Your task to perform on an android device: Go to Android settings Image 0: 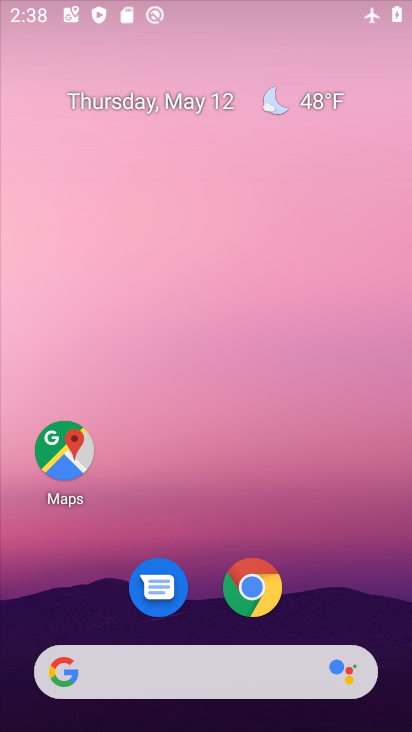
Step 0: press home button
Your task to perform on an android device: Go to Android settings Image 1: 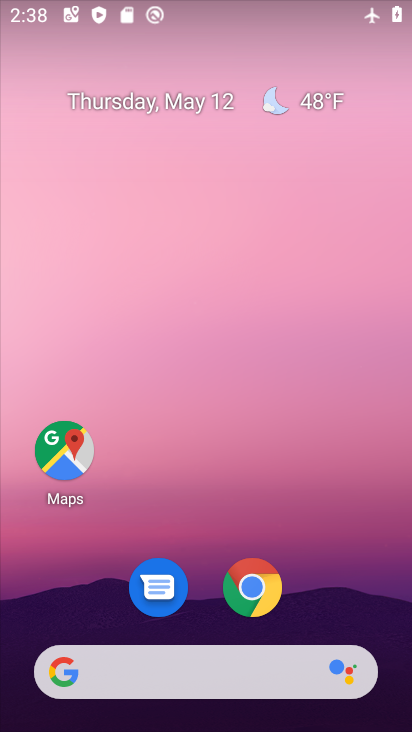
Step 1: drag from (277, 681) to (332, 172)
Your task to perform on an android device: Go to Android settings Image 2: 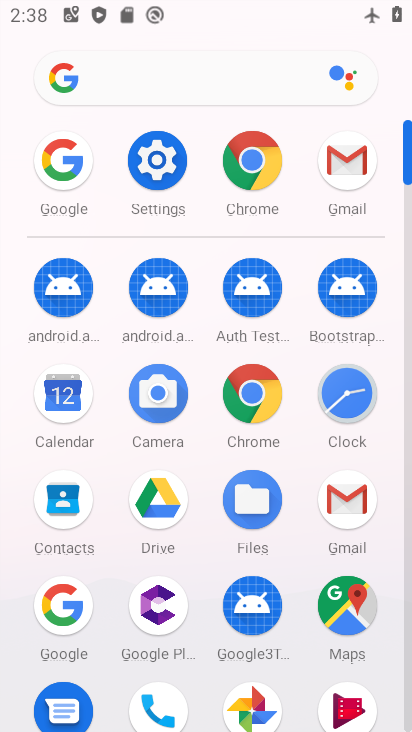
Step 2: click (164, 184)
Your task to perform on an android device: Go to Android settings Image 3: 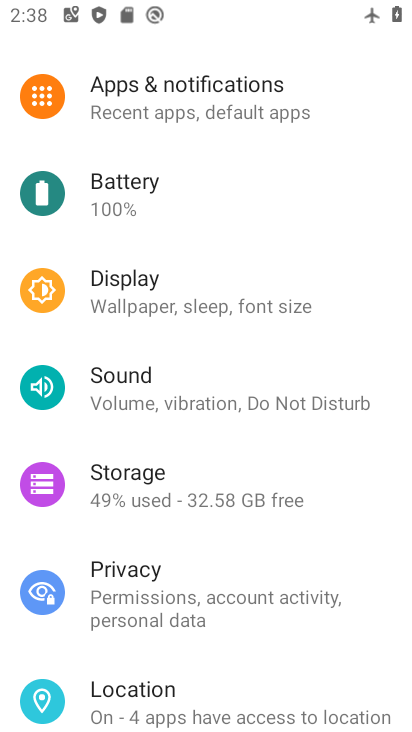
Step 3: drag from (189, 588) to (216, 223)
Your task to perform on an android device: Go to Android settings Image 4: 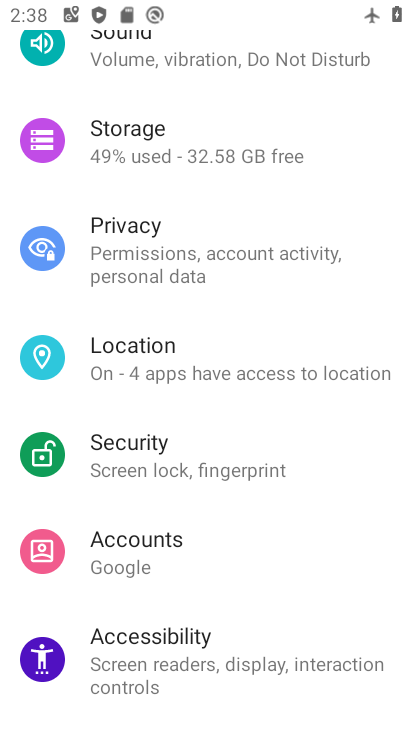
Step 4: drag from (191, 602) to (224, 264)
Your task to perform on an android device: Go to Android settings Image 5: 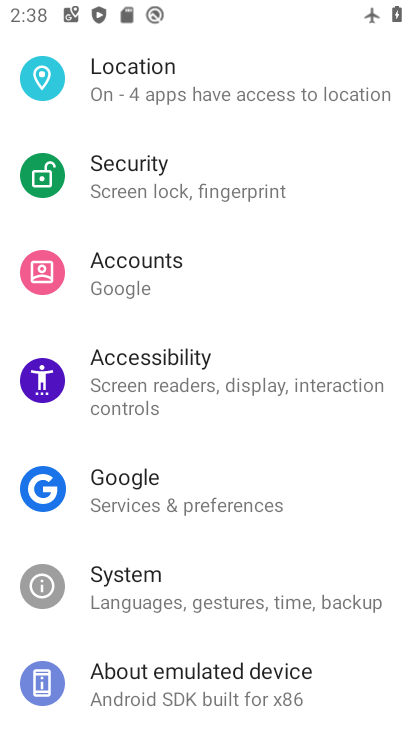
Step 5: drag from (234, 519) to (270, 268)
Your task to perform on an android device: Go to Android settings Image 6: 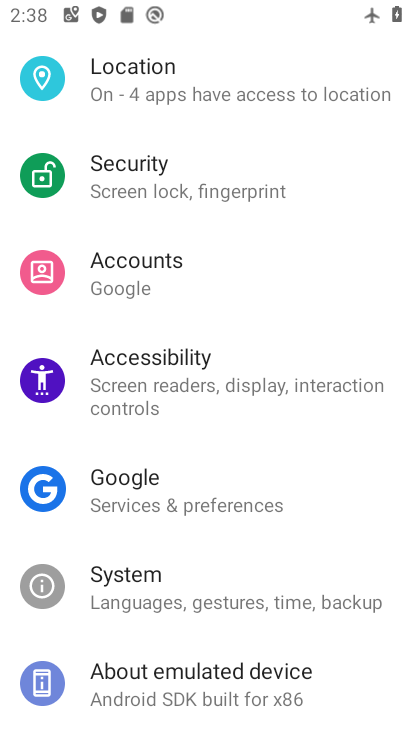
Step 6: click (256, 696)
Your task to perform on an android device: Go to Android settings Image 7: 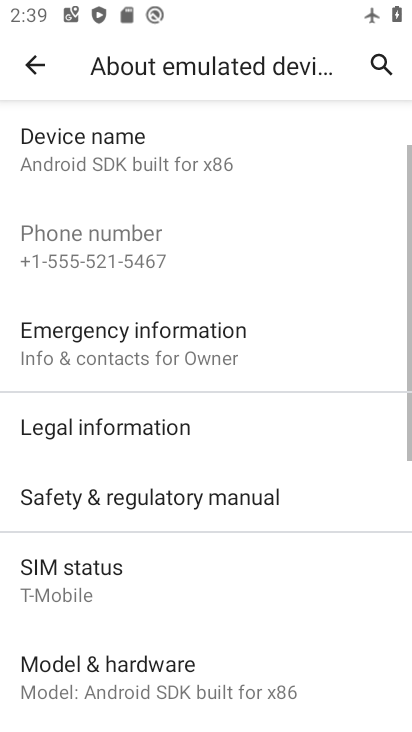
Step 7: drag from (162, 495) to (167, 159)
Your task to perform on an android device: Go to Android settings Image 8: 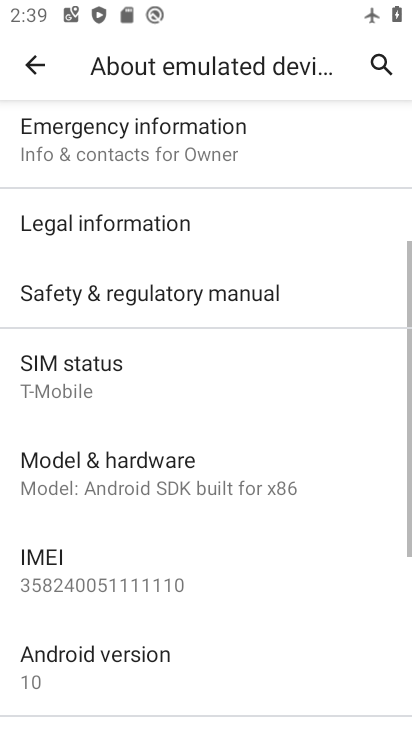
Step 8: click (162, 695)
Your task to perform on an android device: Go to Android settings Image 9: 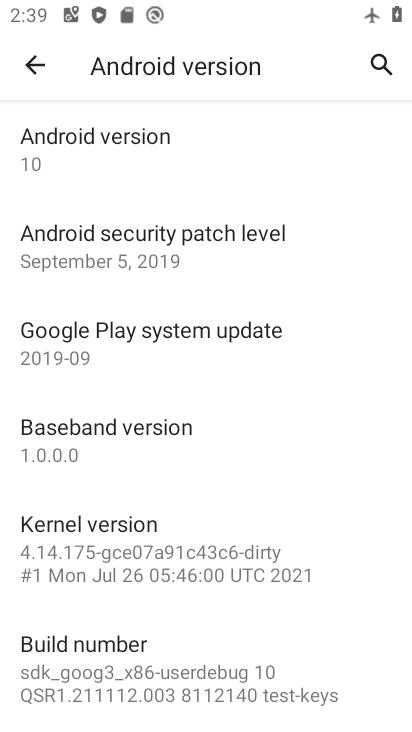
Step 9: task complete